Your task to perform on an android device: turn off wifi Image 0: 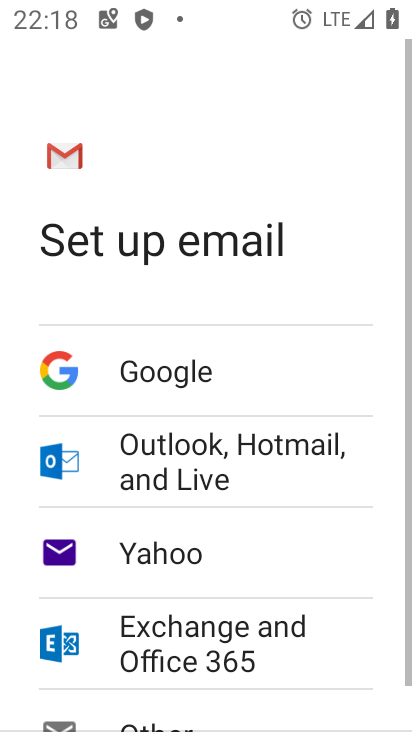
Step 0: drag from (271, 23) to (220, 682)
Your task to perform on an android device: turn off wifi Image 1: 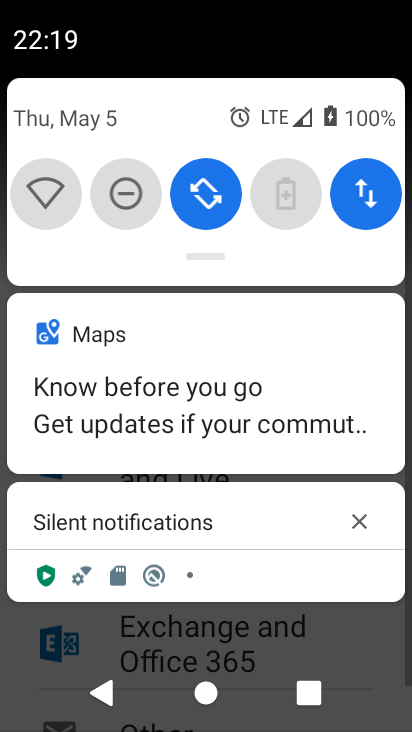
Step 1: task complete